Your task to perform on an android device: set the stopwatch Image 0: 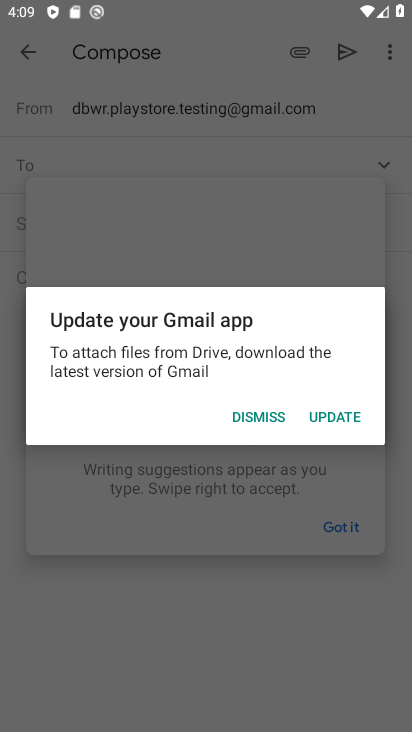
Step 0: press home button
Your task to perform on an android device: set the stopwatch Image 1: 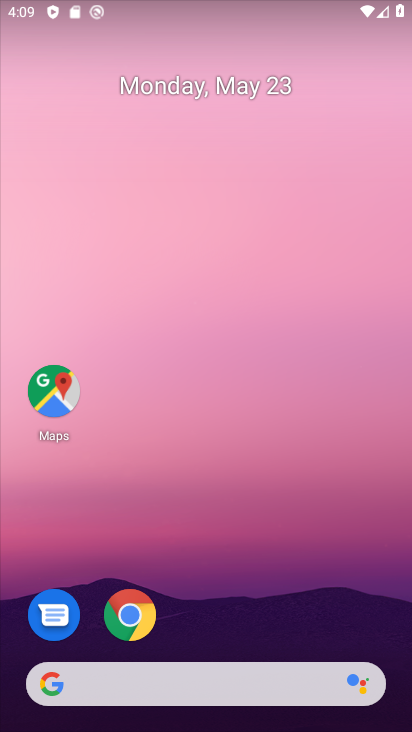
Step 1: drag from (245, 598) to (266, 104)
Your task to perform on an android device: set the stopwatch Image 2: 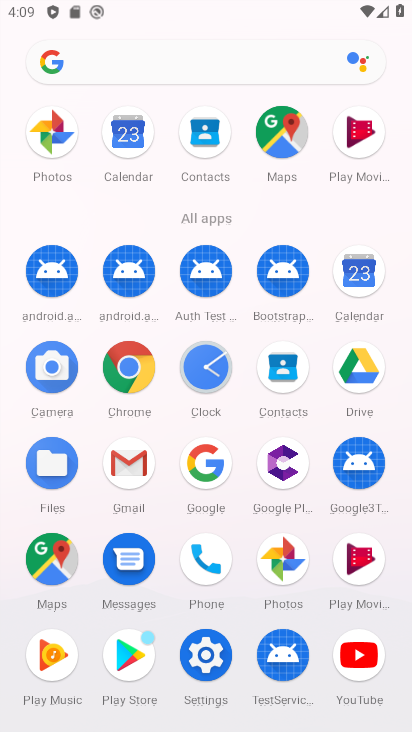
Step 2: click (210, 354)
Your task to perform on an android device: set the stopwatch Image 3: 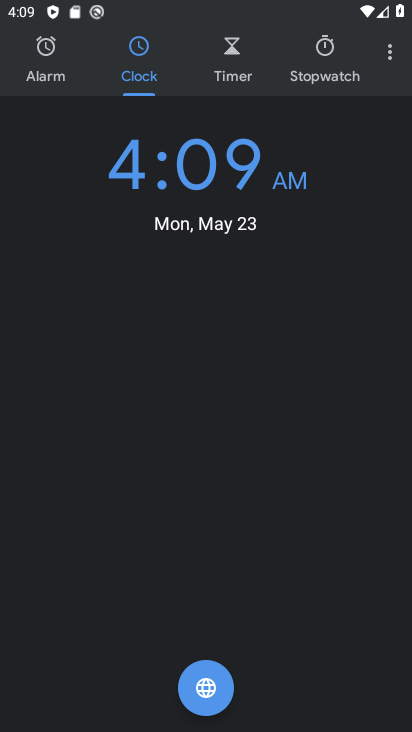
Step 3: click (331, 49)
Your task to perform on an android device: set the stopwatch Image 4: 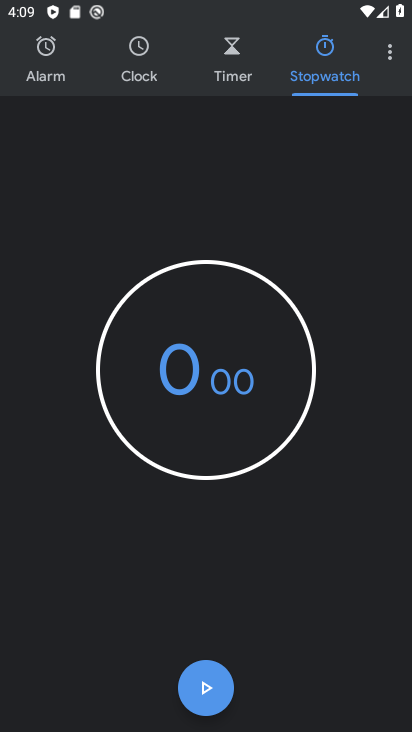
Step 4: task complete